Your task to perform on an android device: Go to Wikipedia Image 0: 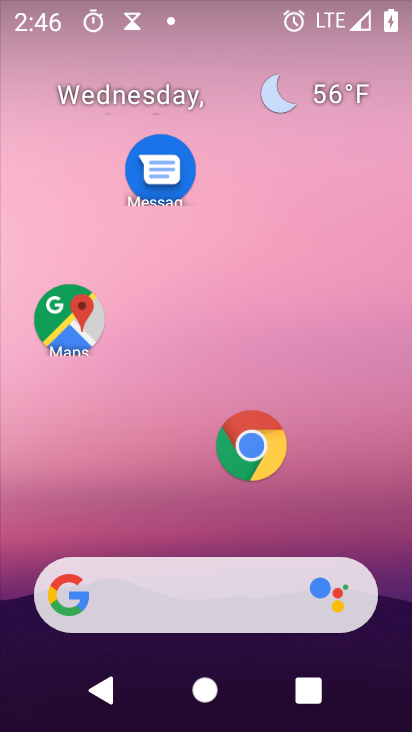
Step 0: drag from (209, 529) to (221, 79)
Your task to perform on an android device: Go to Wikipedia Image 1: 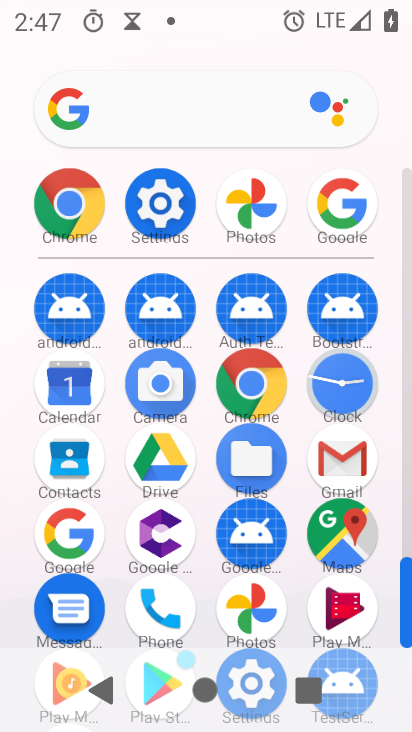
Step 1: click (231, 393)
Your task to perform on an android device: Go to Wikipedia Image 2: 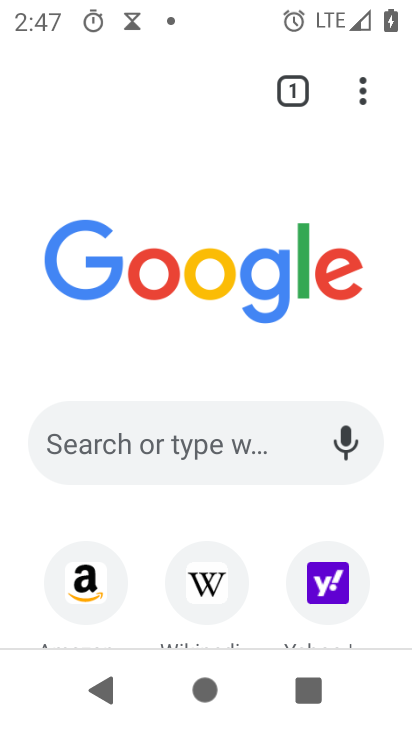
Step 2: click (196, 590)
Your task to perform on an android device: Go to Wikipedia Image 3: 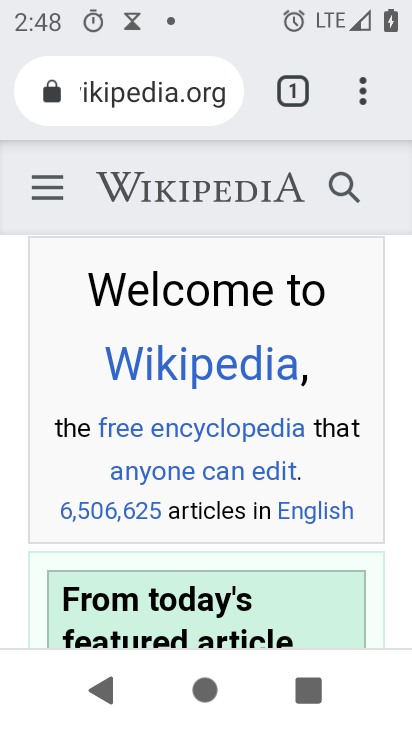
Step 3: task complete